Your task to perform on an android device: add a contact Image 0: 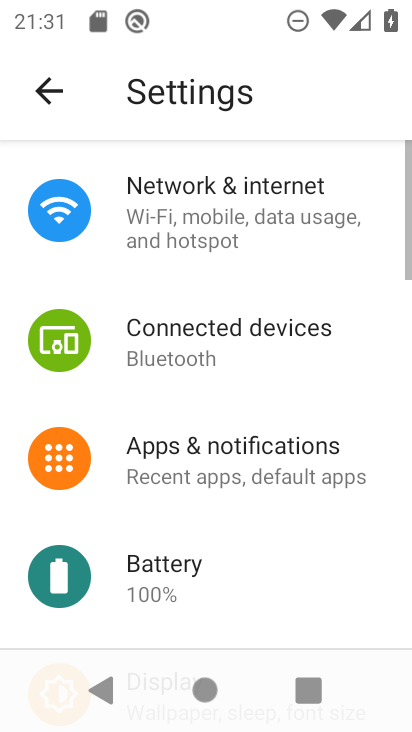
Step 0: press home button
Your task to perform on an android device: add a contact Image 1: 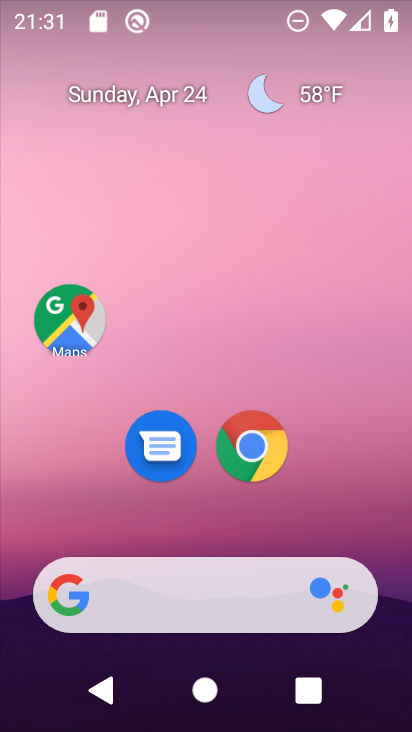
Step 1: drag from (180, 576) to (307, 116)
Your task to perform on an android device: add a contact Image 2: 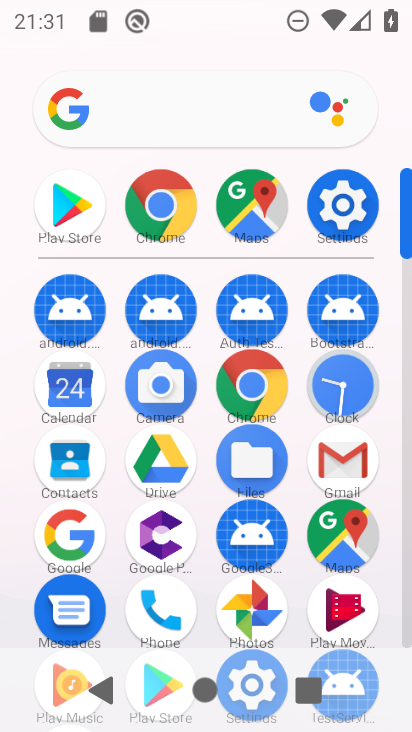
Step 2: click (64, 464)
Your task to perform on an android device: add a contact Image 3: 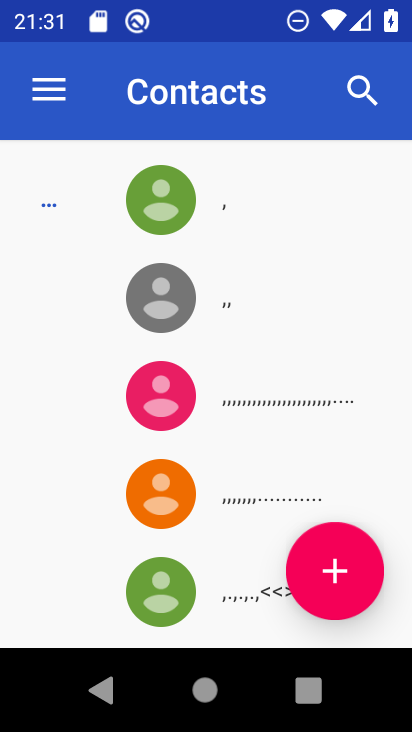
Step 3: click (356, 561)
Your task to perform on an android device: add a contact Image 4: 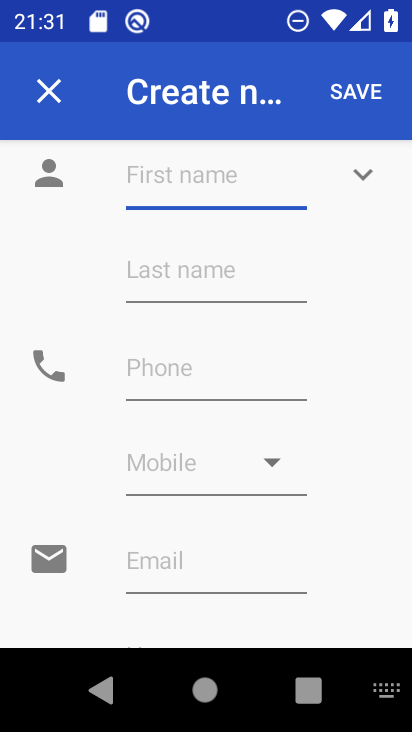
Step 4: type "dgfrtgfdff"
Your task to perform on an android device: add a contact Image 5: 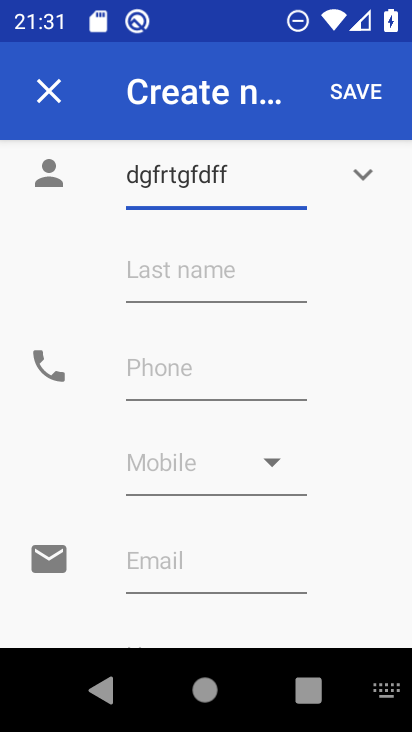
Step 5: click (168, 374)
Your task to perform on an android device: add a contact Image 6: 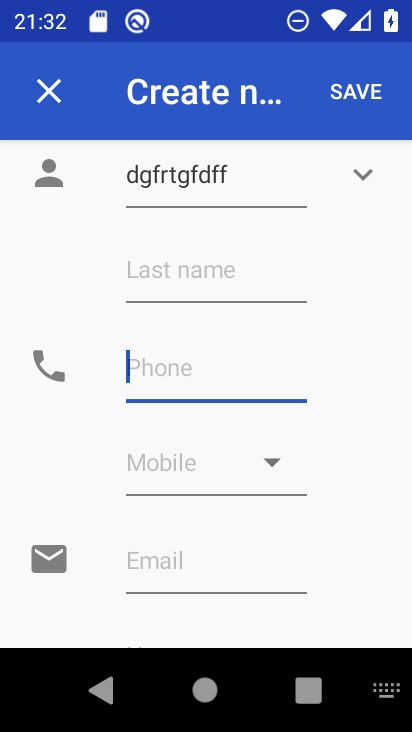
Step 6: type "453654555"
Your task to perform on an android device: add a contact Image 7: 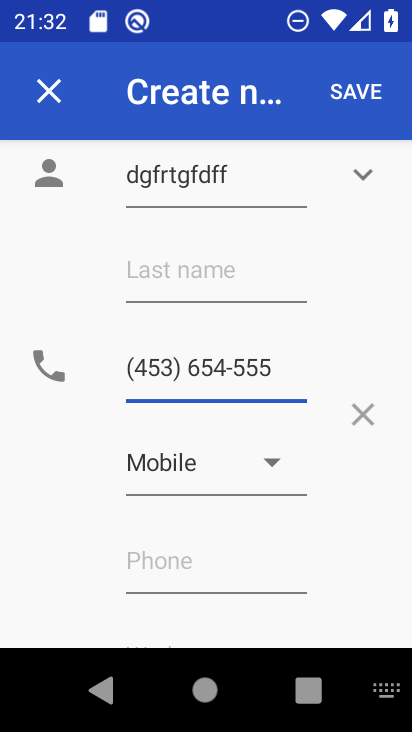
Step 7: click (355, 88)
Your task to perform on an android device: add a contact Image 8: 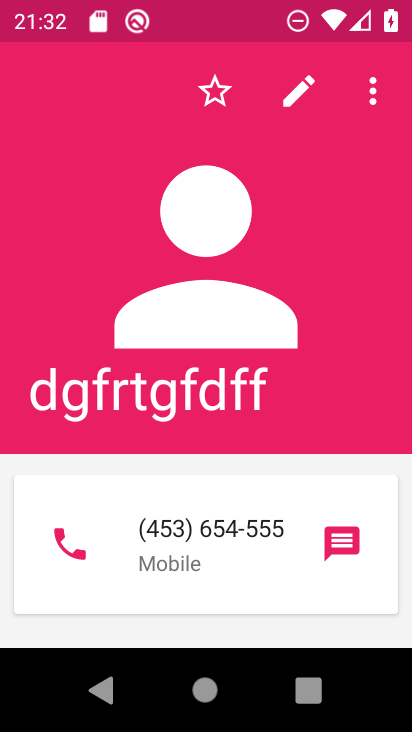
Step 8: task complete